Your task to perform on an android device: toggle improve location accuracy Image 0: 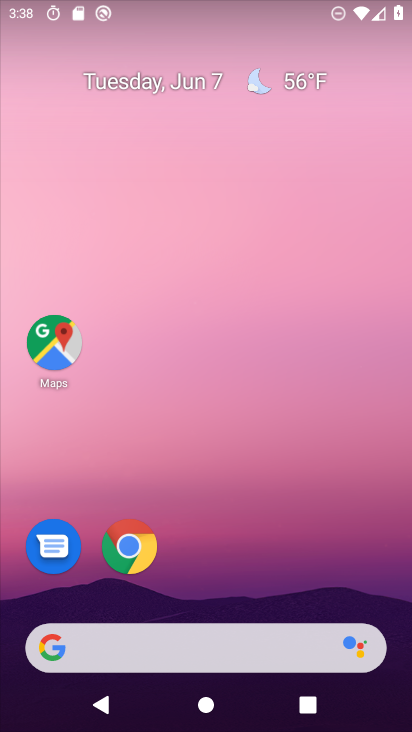
Step 0: drag from (296, 507) to (237, 6)
Your task to perform on an android device: toggle improve location accuracy Image 1: 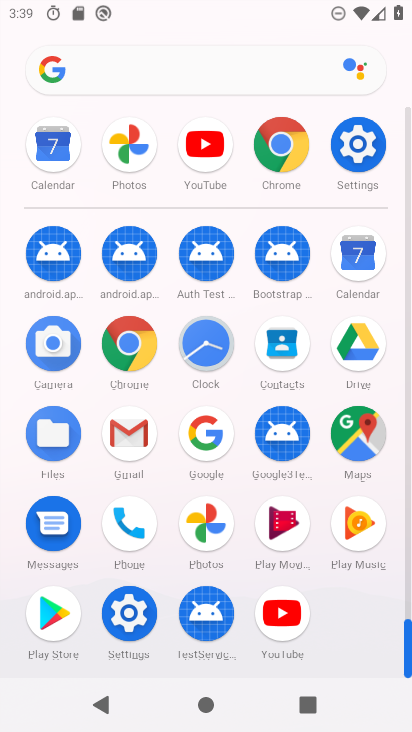
Step 1: click (356, 143)
Your task to perform on an android device: toggle improve location accuracy Image 2: 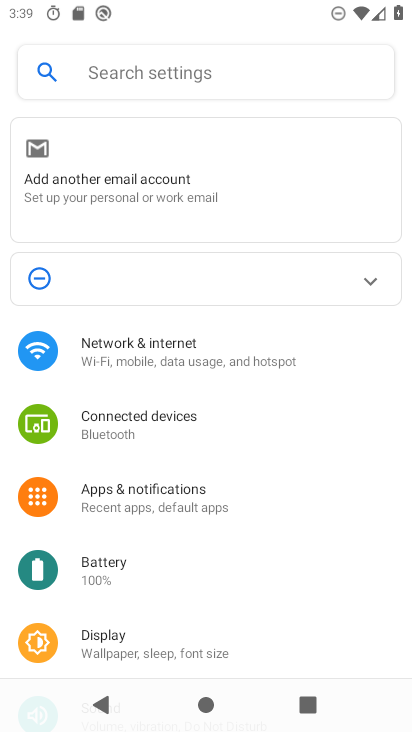
Step 2: drag from (302, 596) to (302, 169)
Your task to perform on an android device: toggle improve location accuracy Image 3: 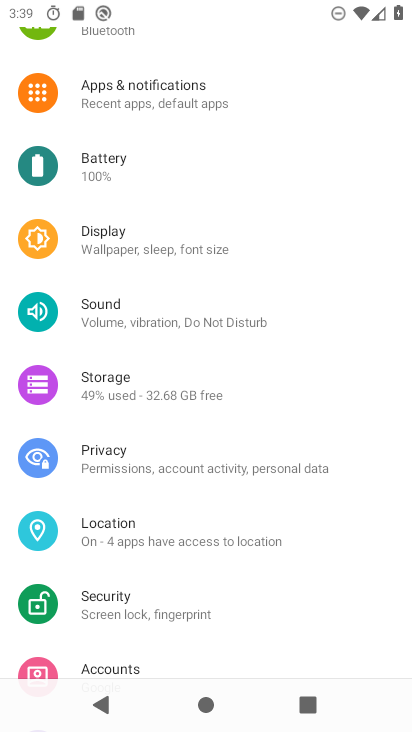
Step 3: drag from (282, 567) to (298, 328)
Your task to perform on an android device: toggle improve location accuracy Image 4: 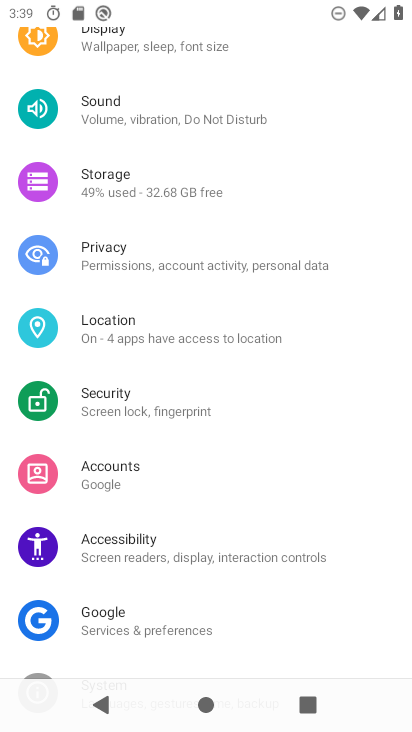
Step 4: click (148, 317)
Your task to perform on an android device: toggle improve location accuracy Image 5: 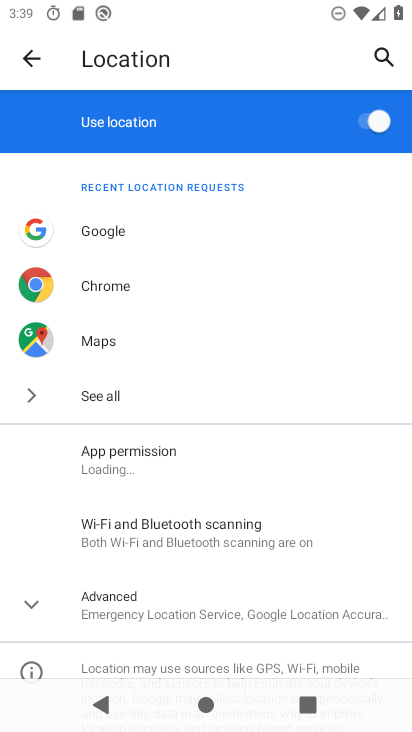
Step 5: click (34, 616)
Your task to perform on an android device: toggle improve location accuracy Image 6: 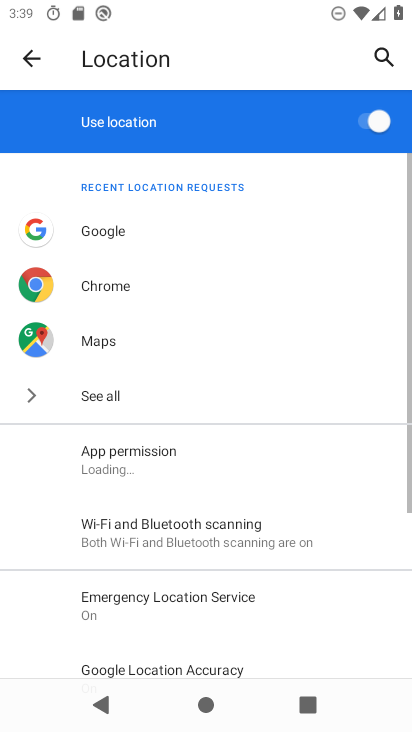
Step 6: drag from (286, 659) to (327, 248)
Your task to perform on an android device: toggle improve location accuracy Image 7: 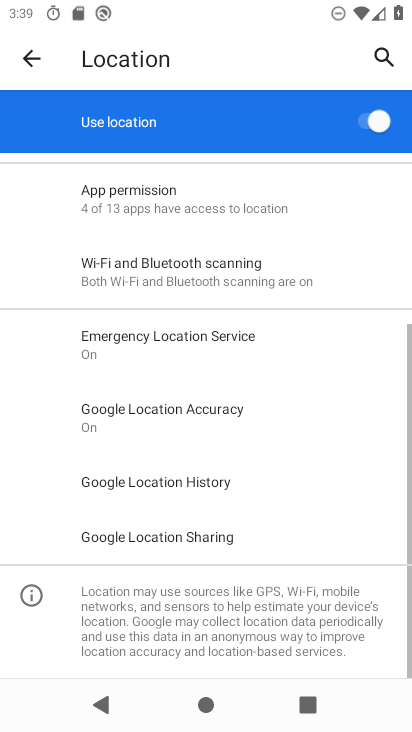
Step 7: click (212, 410)
Your task to perform on an android device: toggle improve location accuracy Image 8: 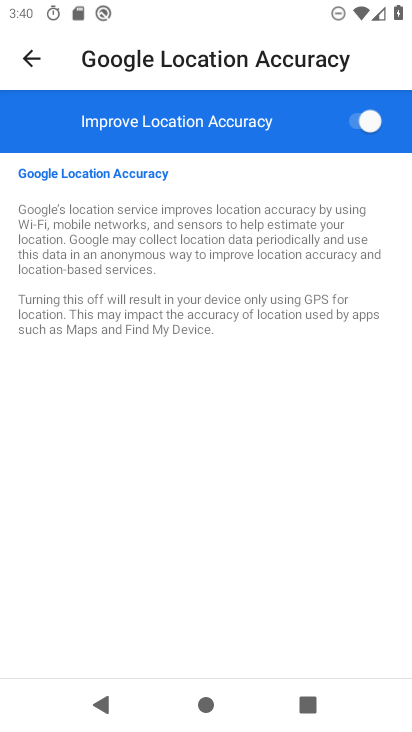
Step 8: click (370, 118)
Your task to perform on an android device: toggle improve location accuracy Image 9: 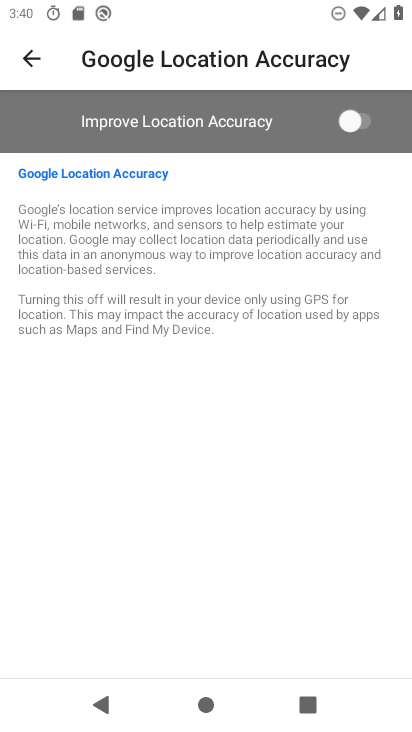
Step 9: task complete